Your task to perform on an android device: Search for Italian restaurants on Maps Image 0: 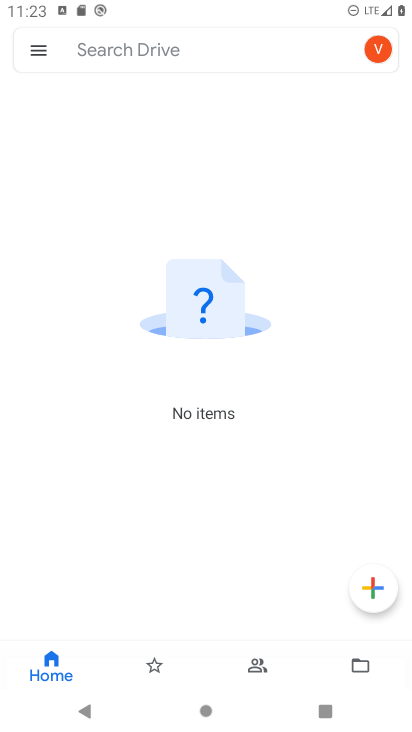
Step 0: press home button
Your task to perform on an android device: Search for Italian restaurants on Maps Image 1: 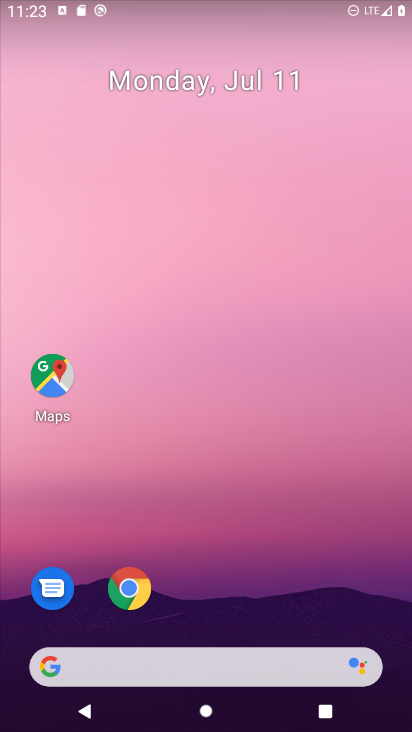
Step 1: drag from (393, 675) to (256, 2)
Your task to perform on an android device: Search for Italian restaurants on Maps Image 2: 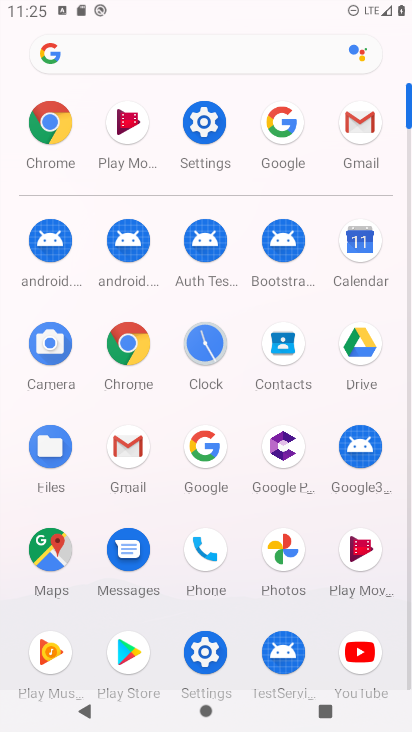
Step 2: click (59, 544)
Your task to perform on an android device: Search for Italian restaurants on Maps Image 3: 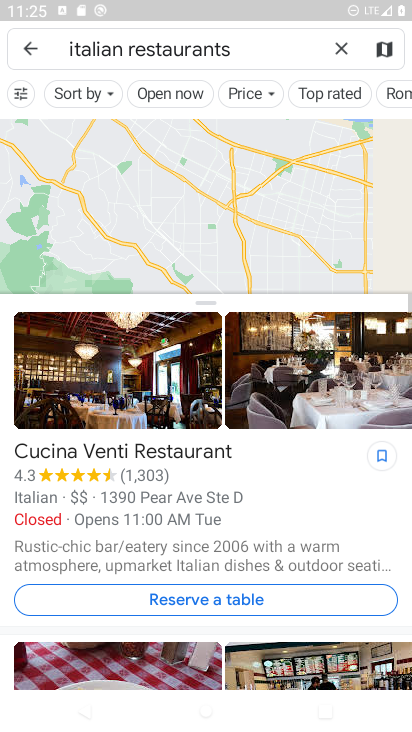
Step 3: click (343, 51)
Your task to perform on an android device: Search for Italian restaurants on Maps Image 4: 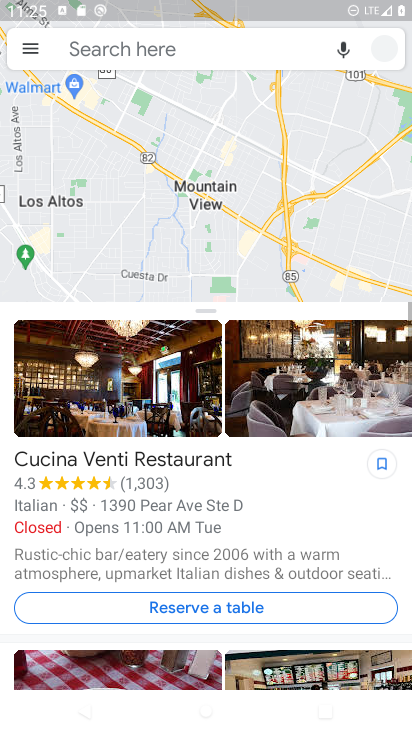
Step 4: click (215, 53)
Your task to perform on an android device: Search for Italian restaurants on Maps Image 5: 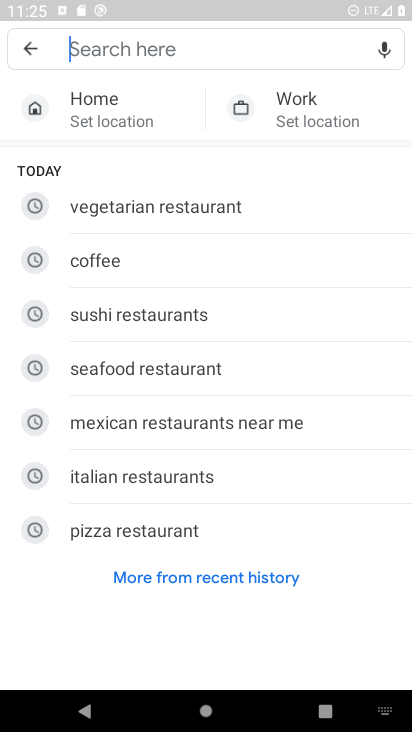
Step 5: click (167, 491)
Your task to perform on an android device: Search for Italian restaurants on Maps Image 6: 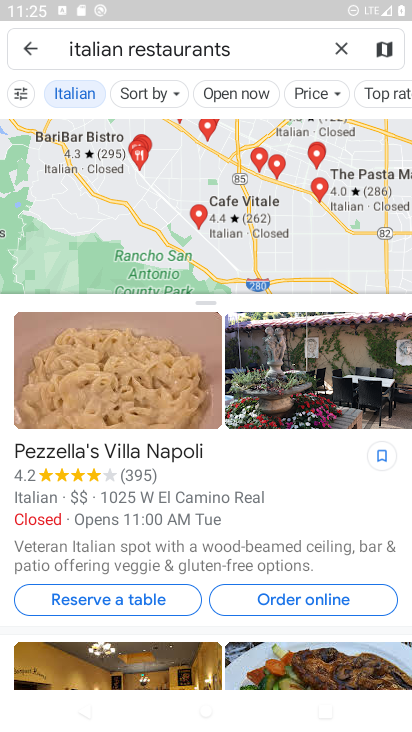
Step 6: task complete